Your task to perform on an android device: Open the calendar app, open the side menu, and click the "Day" option Image 0: 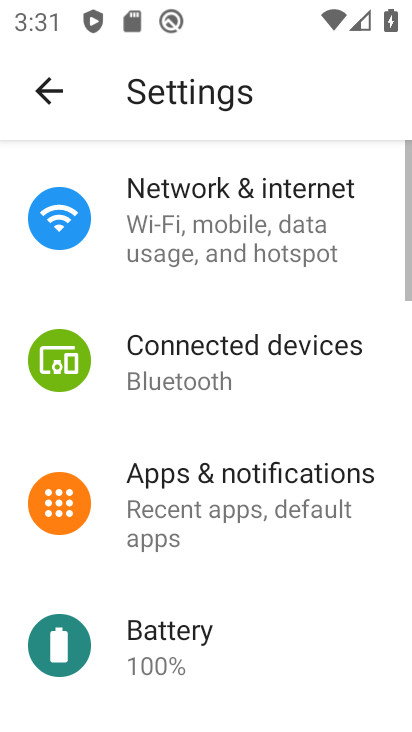
Step 0: press home button
Your task to perform on an android device: Open the calendar app, open the side menu, and click the "Day" option Image 1: 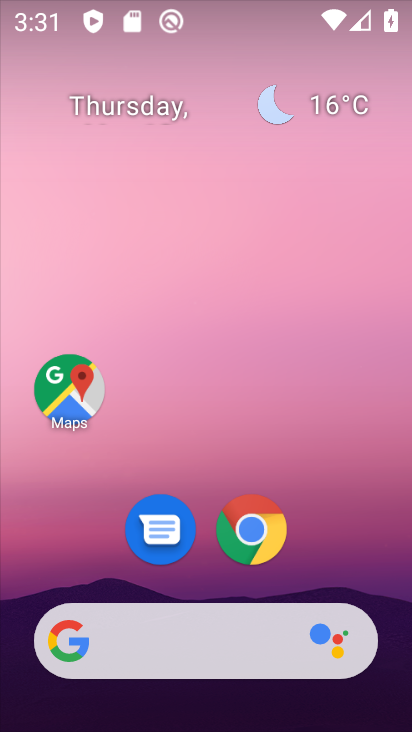
Step 1: drag from (220, 579) to (200, 61)
Your task to perform on an android device: Open the calendar app, open the side menu, and click the "Day" option Image 2: 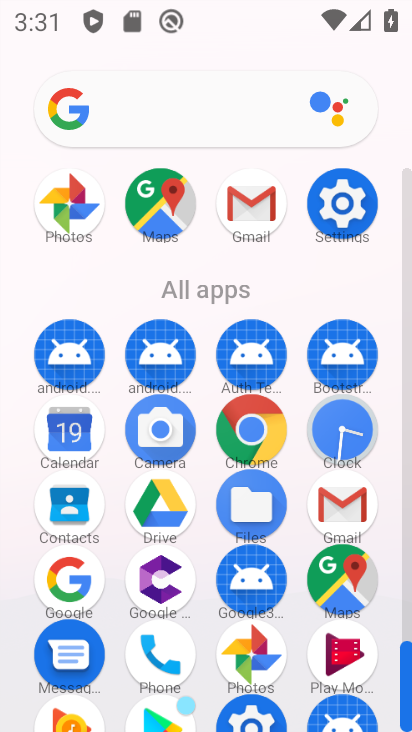
Step 2: click (82, 428)
Your task to perform on an android device: Open the calendar app, open the side menu, and click the "Day" option Image 3: 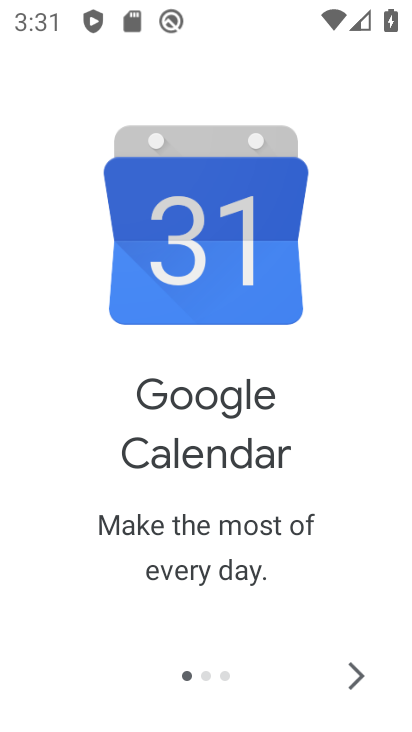
Step 3: click (349, 689)
Your task to perform on an android device: Open the calendar app, open the side menu, and click the "Day" option Image 4: 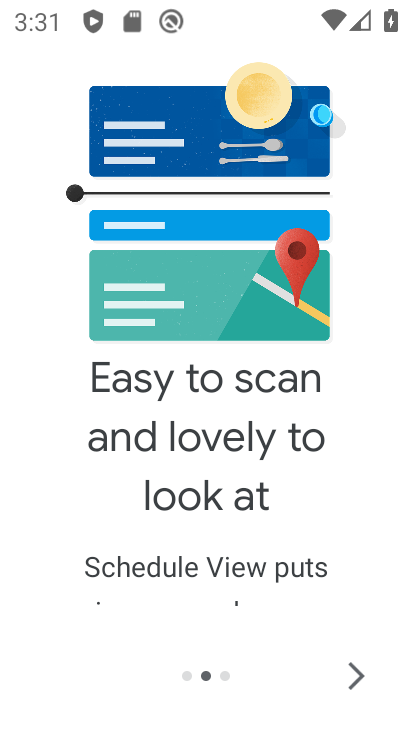
Step 4: click (349, 687)
Your task to perform on an android device: Open the calendar app, open the side menu, and click the "Day" option Image 5: 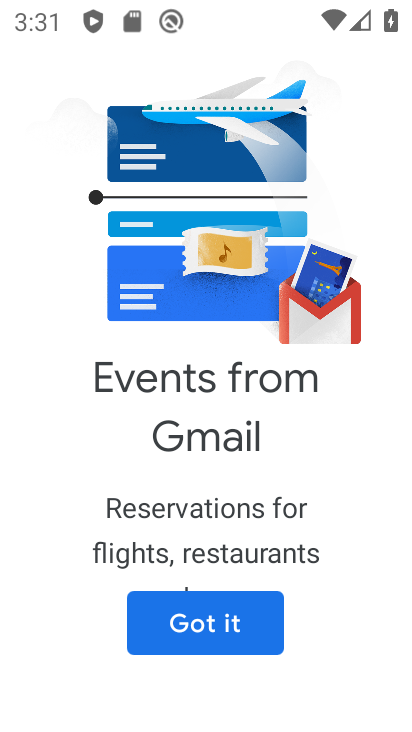
Step 5: click (178, 637)
Your task to perform on an android device: Open the calendar app, open the side menu, and click the "Day" option Image 6: 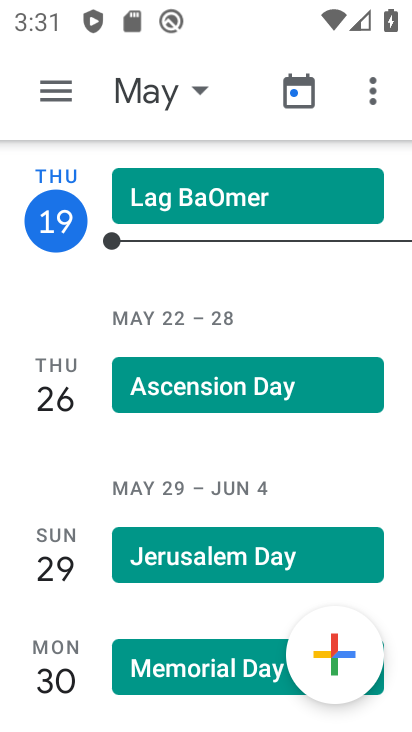
Step 6: click (66, 96)
Your task to perform on an android device: Open the calendar app, open the side menu, and click the "Day" option Image 7: 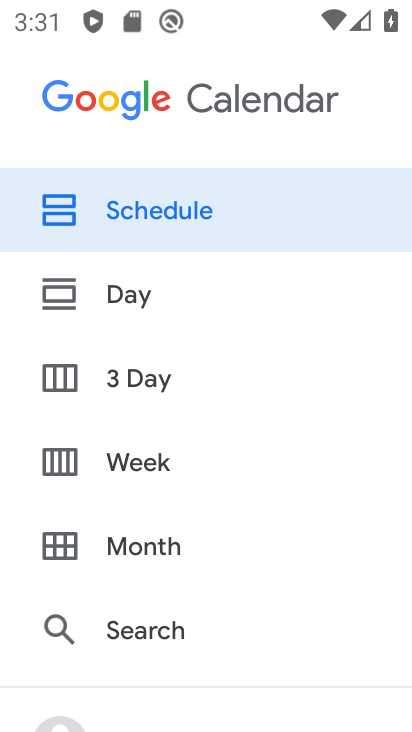
Step 7: click (147, 305)
Your task to perform on an android device: Open the calendar app, open the side menu, and click the "Day" option Image 8: 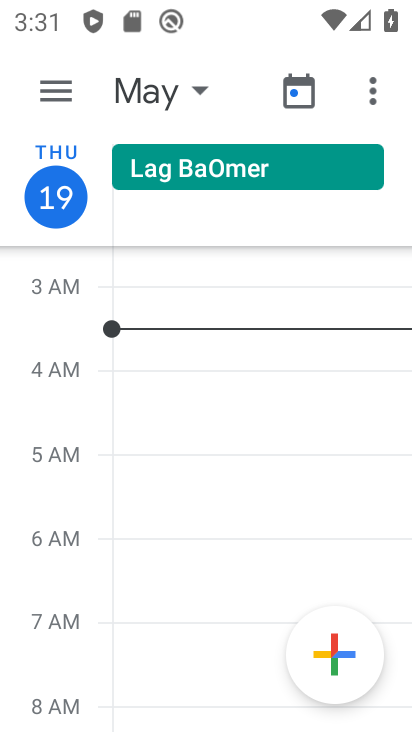
Step 8: task complete